Your task to perform on an android device: open app "Instagram" Image 0: 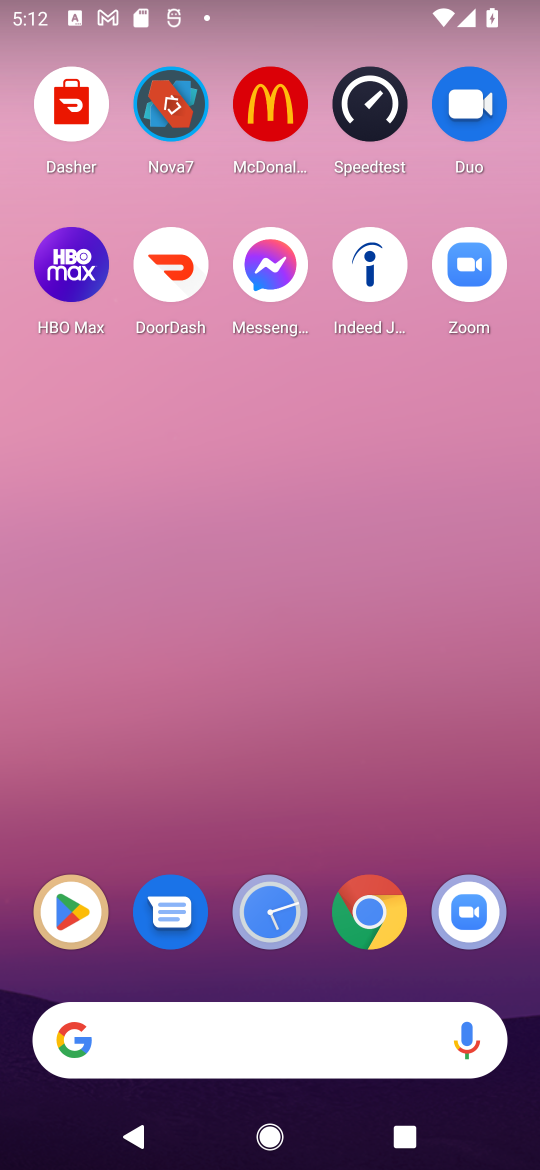
Step 0: click (64, 937)
Your task to perform on an android device: open app "Instagram" Image 1: 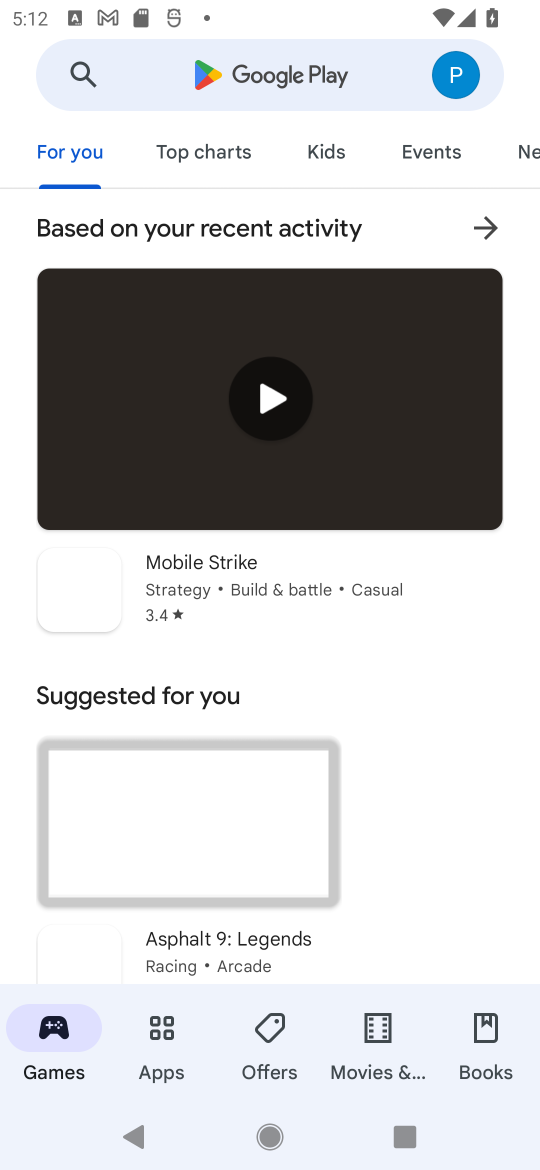
Step 1: click (248, 75)
Your task to perform on an android device: open app "Instagram" Image 2: 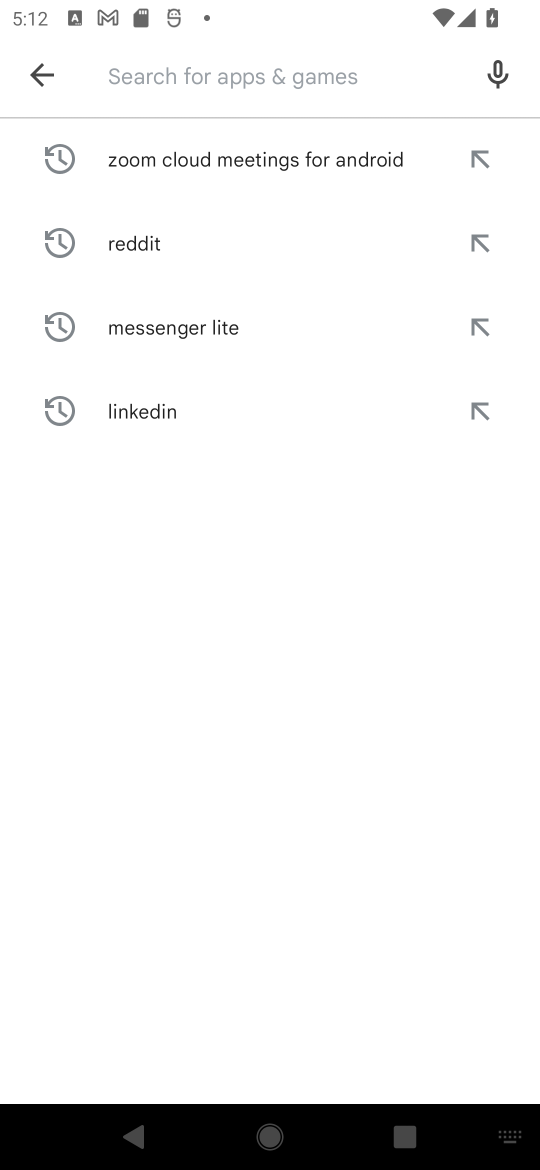
Step 2: type "Instagram"
Your task to perform on an android device: open app "Instagram" Image 3: 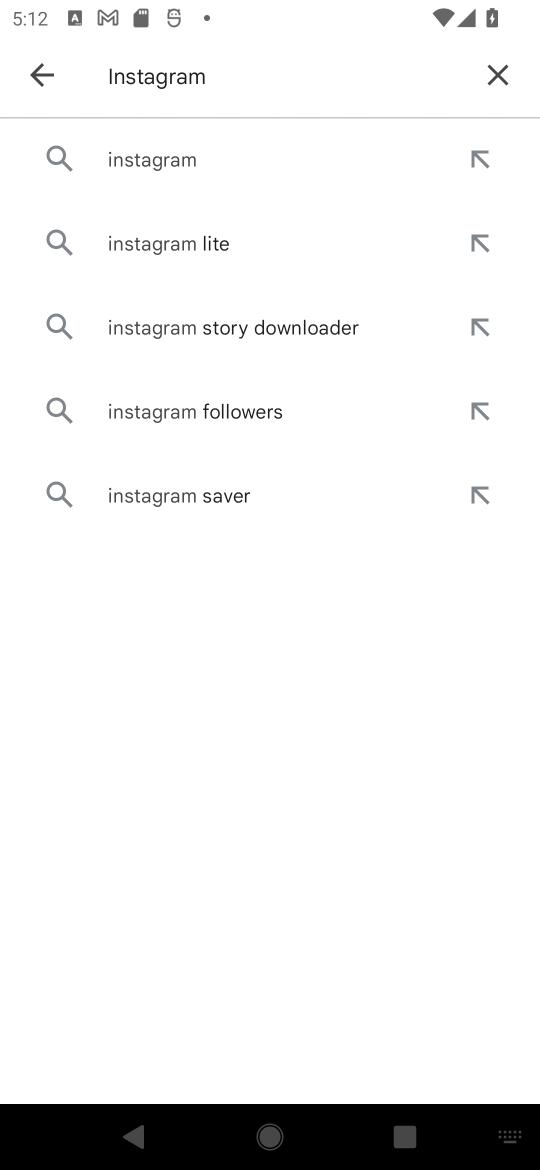
Step 3: click (197, 166)
Your task to perform on an android device: open app "Instagram" Image 4: 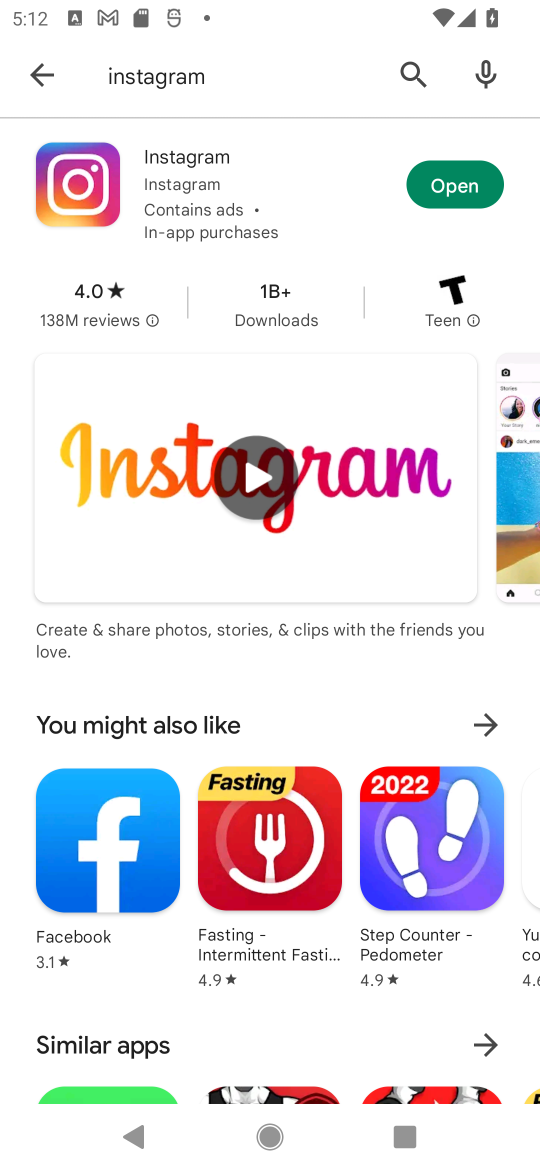
Step 4: click (465, 198)
Your task to perform on an android device: open app "Instagram" Image 5: 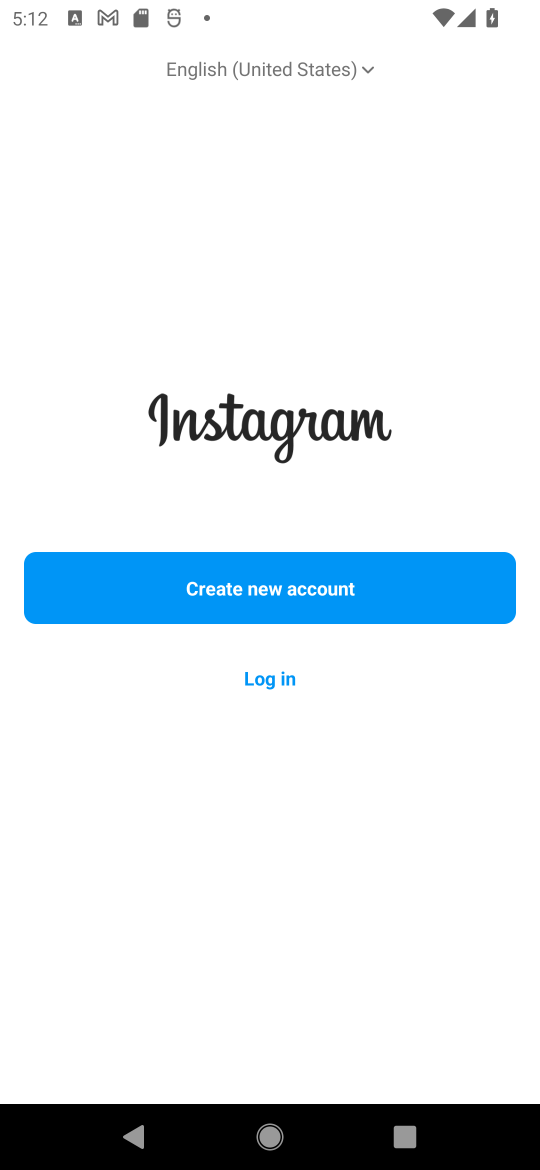
Step 5: task complete